Your task to perform on an android device: Is it going to rain tomorrow? Image 0: 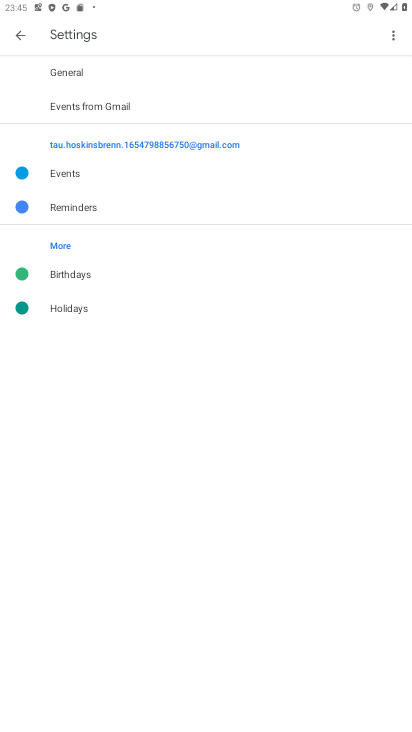
Step 0: press home button
Your task to perform on an android device: Is it going to rain tomorrow? Image 1: 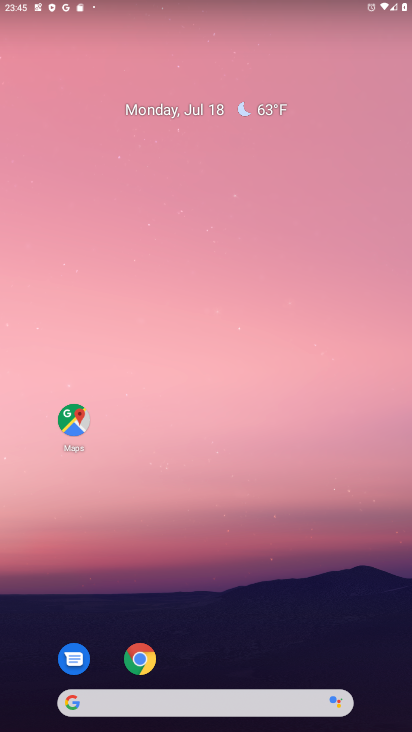
Step 1: click (139, 664)
Your task to perform on an android device: Is it going to rain tomorrow? Image 2: 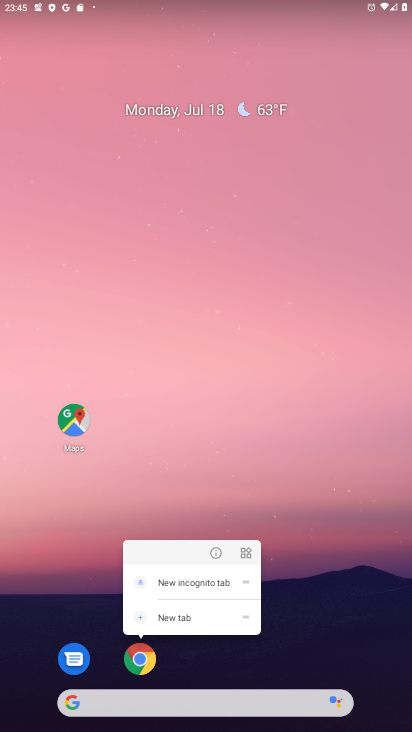
Step 2: click (140, 669)
Your task to perform on an android device: Is it going to rain tomorrow? Image 3: 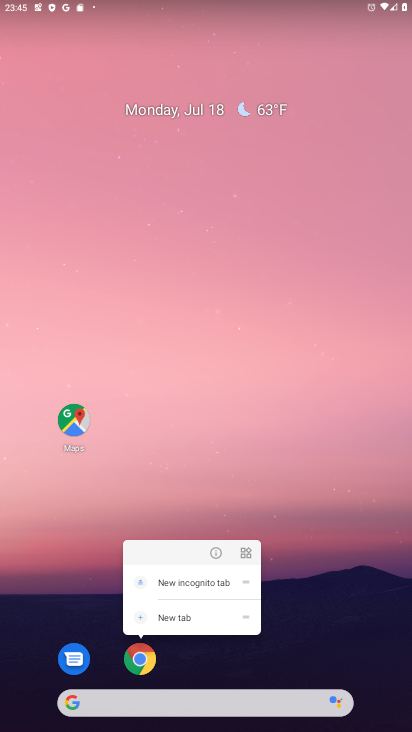
Step 3: click (140, 669)
Your task to perform on an android device: Is it going to rain tomorrow? Image 4: 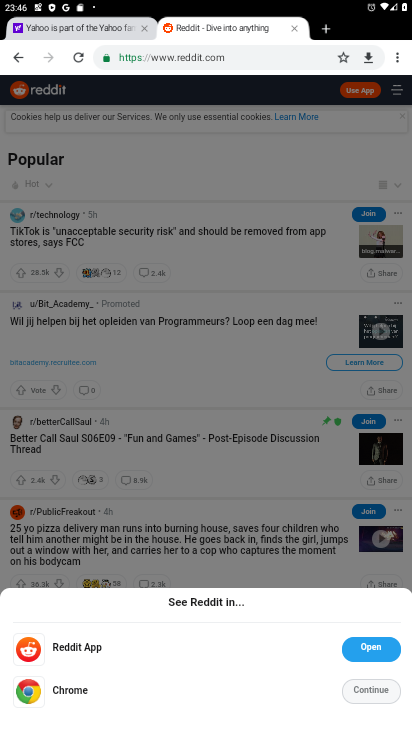
Step 4: click (180, 58)
Your task to perform on an android device: Is it going to rain tomorrow? Image 5: 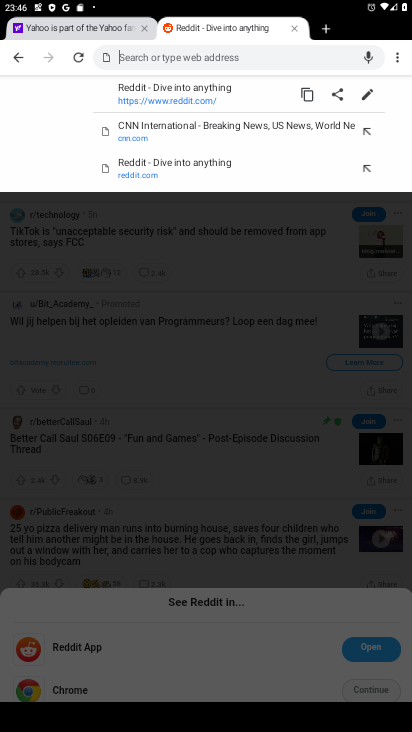
Step 5: type "Is it going to rain tomorrow?"
Your task to perform on an android device: Is it going to rain tomorrow? Image 6: 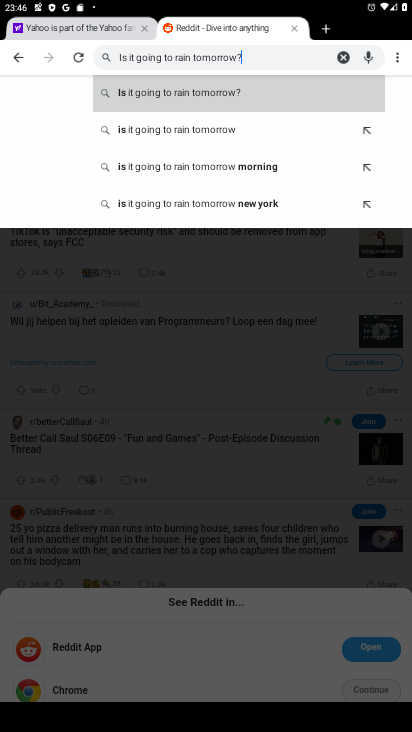
Step 6: type ""
Your task to perform on an android device: Is it going to rain tomorrow? Image 7: 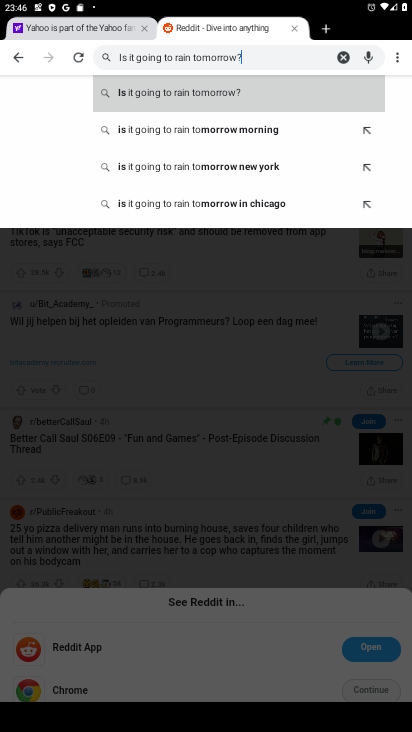
Step 7: click (157, 94)
Your task to perform on an android device: Is it going to rain tomorrow? Image 8: 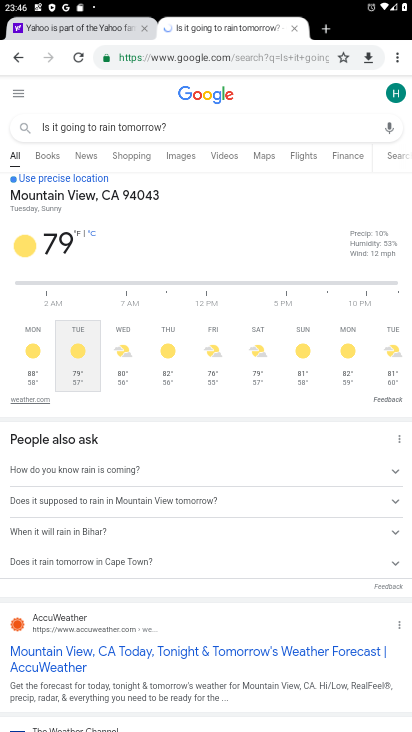
Step 8: task complete